Your task to perform on an android device: Add macbook air to the cart on walmart Image 0: 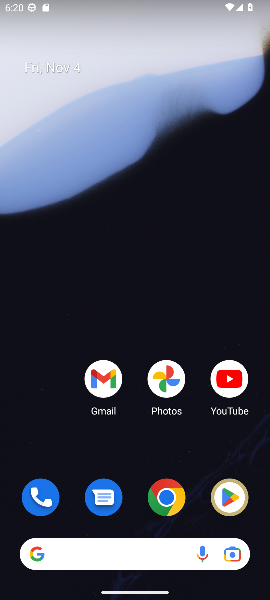
Step 0: click (168, 501)
Your task to perform on an android device: Add macbook air to the cart on walmart Image 1: 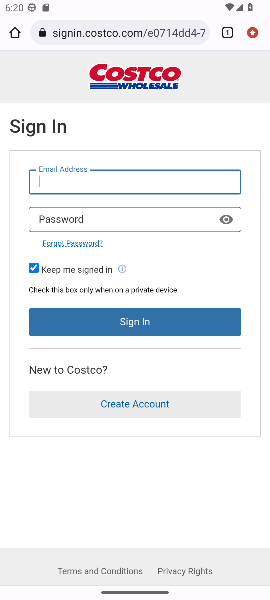
Step 1: click (110, 33)
Your task to perform on an android device: Add macbook air to the cart on walmart Image 2: 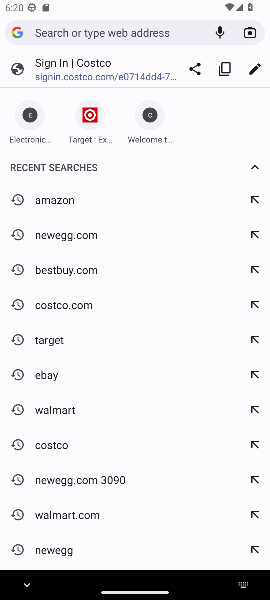
Step 2: click (56, 406)
Your task to perform on an android device: Add macbook air to the cart on walmart Image 3: 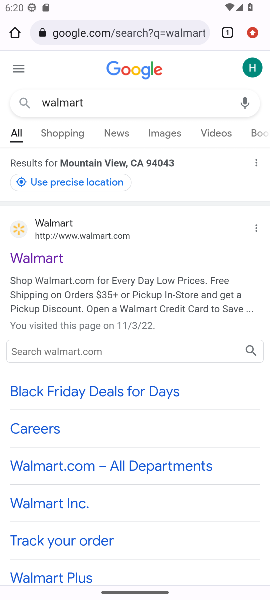
Step 3: click (41, 266)
Your task to perform on an android device: Add macbook air to the cart on walmart Image 4: 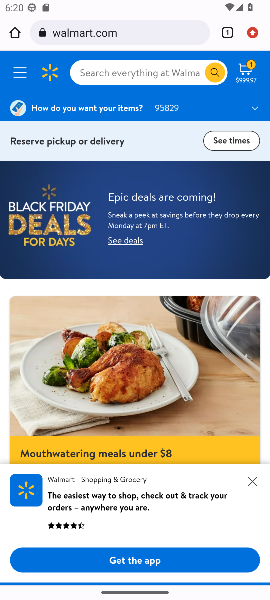
Step 4: click (99, 64)
Your task to perform on an android device: Add macbook air to the cart on walmart Image 5: 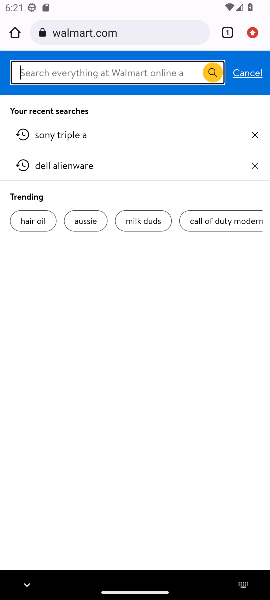
Step 5: type "macbook air"
Your task to perform on an android device: Add macbook air to the cart on walmart Image 6: 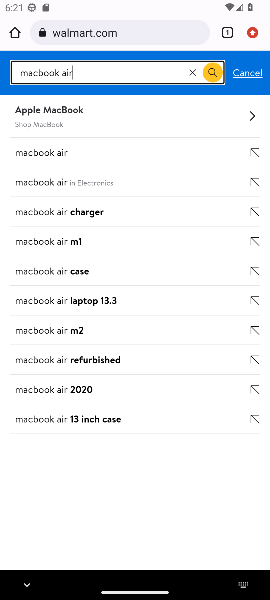
Step 6: click (30, 151)
Your task to perform on an android device: Add macbook air to the cart on walmart Image 7: 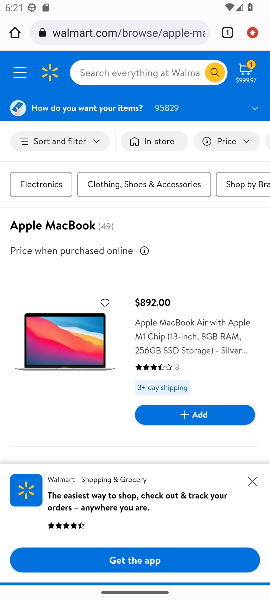
Step 7: click (115, 345)
Your task to perform on an android device: Add macbook air to the cart on walmart Image 8: 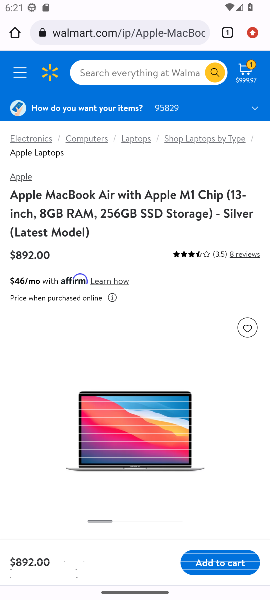
Step 8: click (218, 563)
Your task to perform on an android device: Add macbook air to the cart on walmart Image 9: 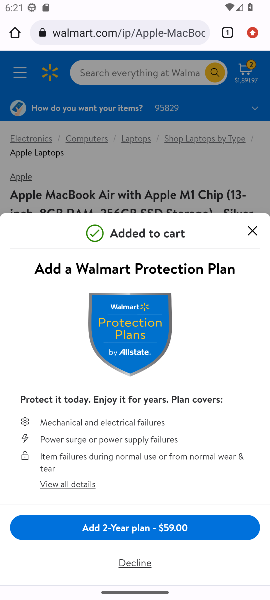
Step 9: click (248, 232)
Your task to perform on an android device: Add macbook air to the cart on walmart Image 10: 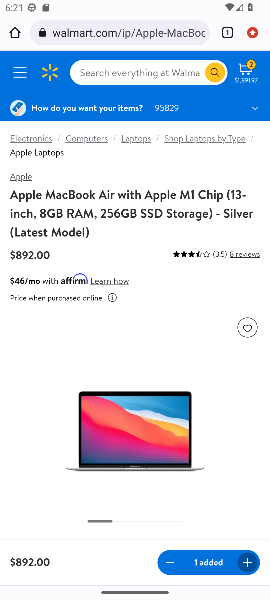
Step 10: task complete